Your task to perform on an android device: Open Chrome and go to settings Image 0: 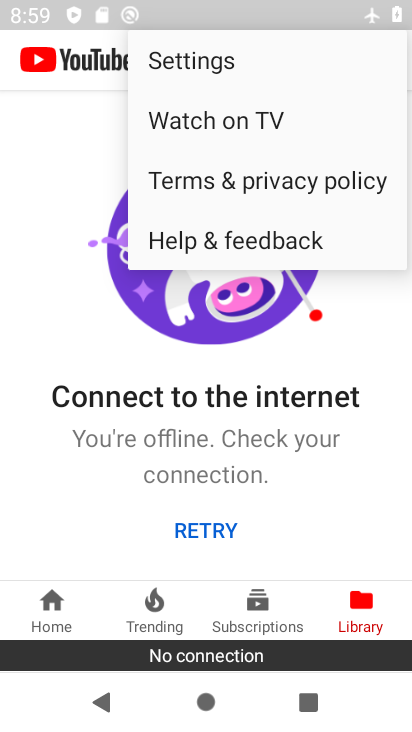
Step 0: press home button
Your task to perform on an android device: Open Chrome and go to settings Image 1: 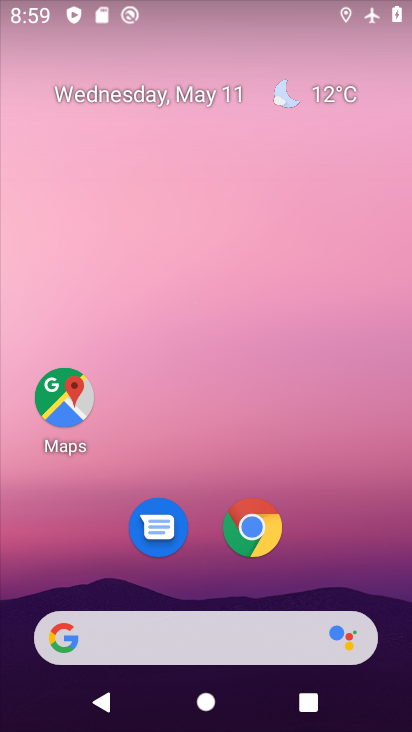
Step 1: click (254, 537)
Your task to perform on an android device: Open Chrome and go to settings Image 2: 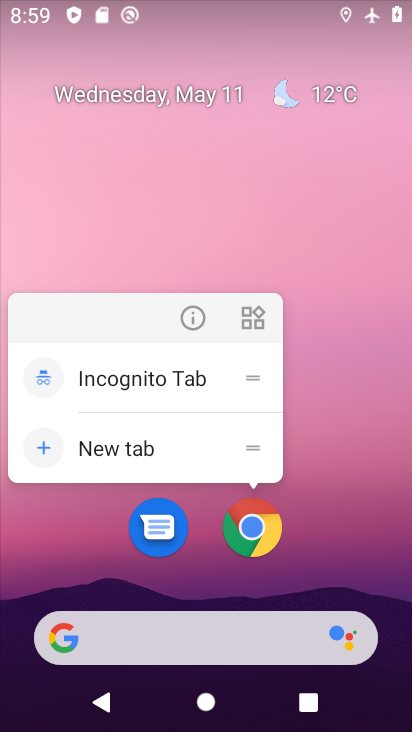
Step 2: click (253, 533)
Your task to perform on an android device: Open Chrome and go to settings Image 3: 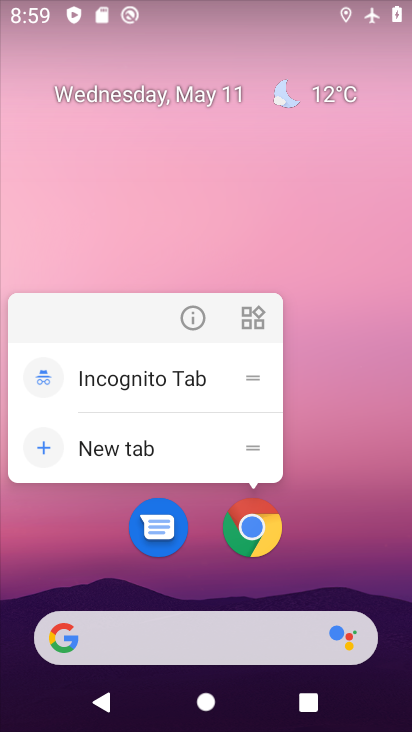
Step 3: click (253, 530)
Your task to perform on an android device: Open Chrome and go to settings Image 4: 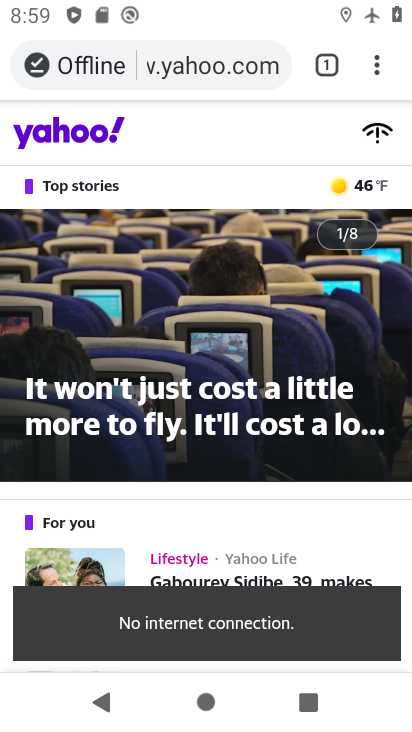
Step 4: task complete